Your task to perform on an android device: delete the emails in spam in the gmail app Image 0: 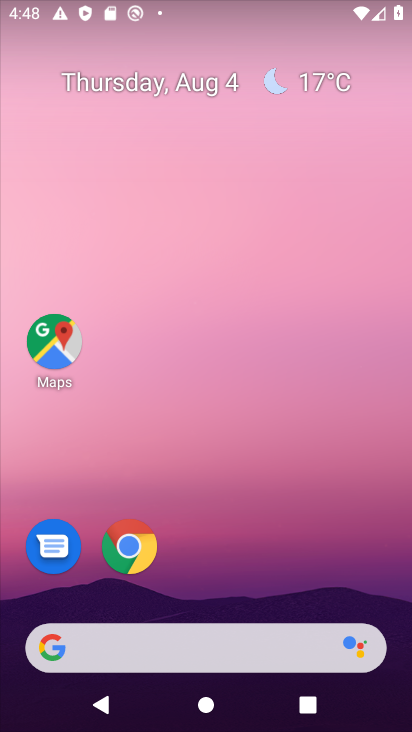
Step 0: drag from (179, 524) to (204, 65)
Your task to perform on an android device: delete the emails in spam in the gmail app Image 1: 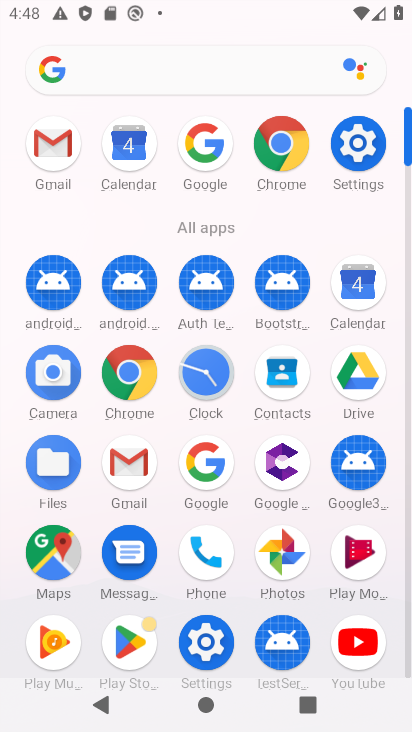
Step 1: drag from (202, 194) to (128, 10)
Your task to perform on an android device: delete the emails in spam in the gmail app Image 2: 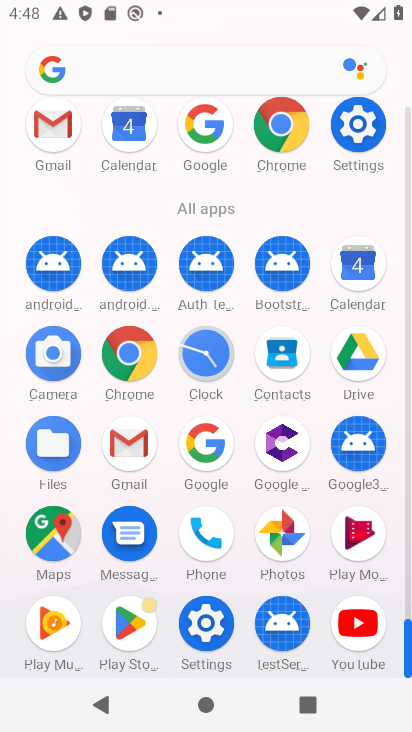
Step 2: click (33, 139)
Your task to perform on an android device: delete the emails in spam in the gmail app Image 3: 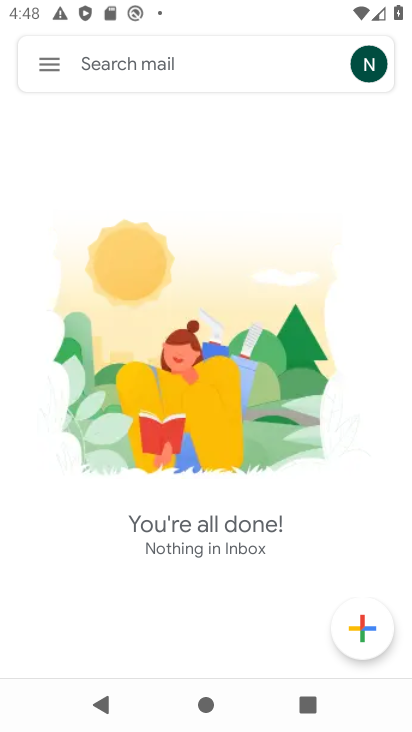
Step 3: click (45, 71)
Your task to perform on an android device: delete the emails in spam in the gmail app Image 4: 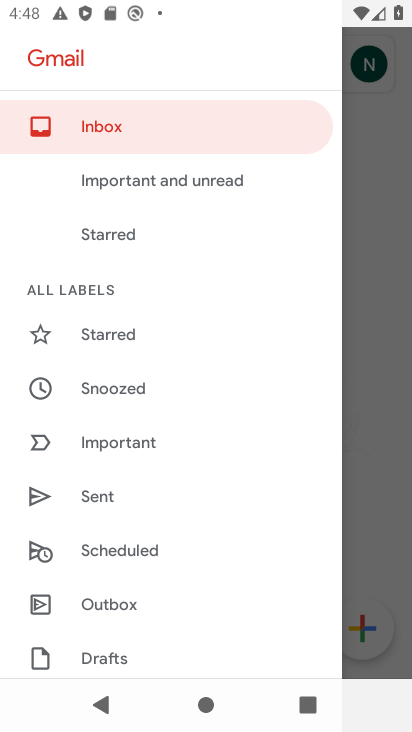
Step 4: drag from (123, 570) to (250, 169)
Your task to perform on an android device: delete the emails in spam in the gmail app Image 5: 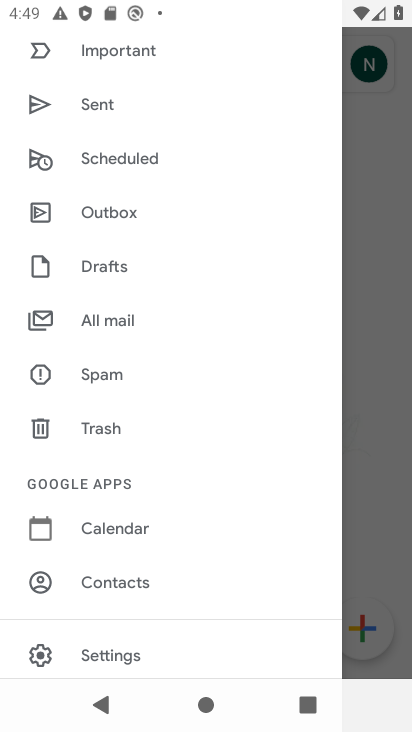
Step 5: click (109, 372)
Your task to perform on an android device: delete the emails in spam in the gmail app Image 6: 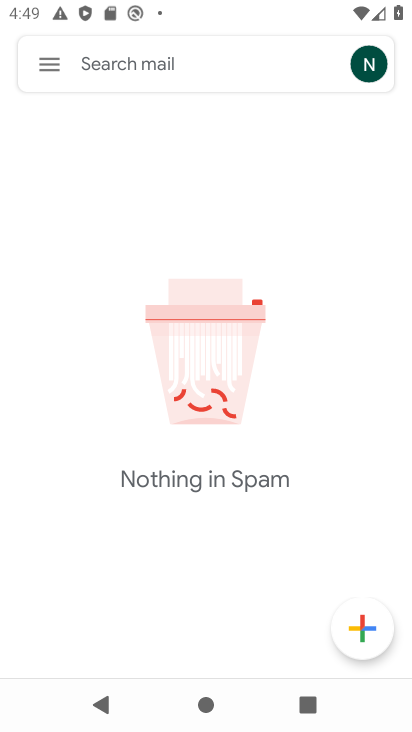
Step 6: task complete